Your task to perform on an android device: Check the weather Image 0: 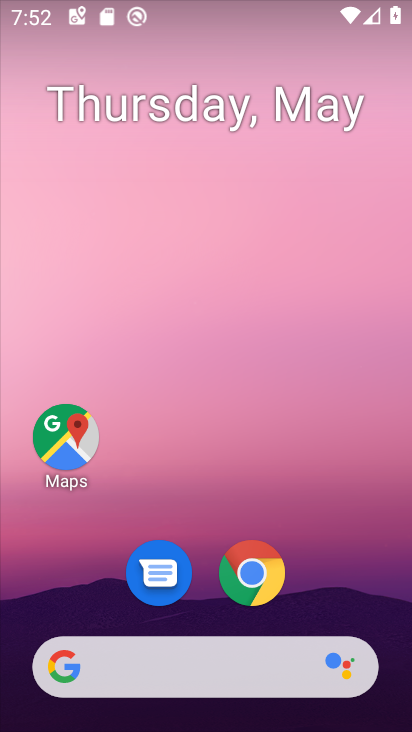
Step 0: drag from (226, 616) to (208, 79)
Your task to perform on an android device: Check the weather Image 1: 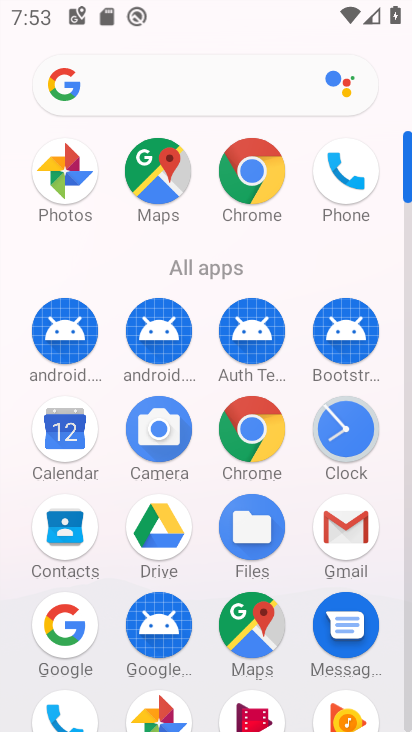
Step 1: click (73, 637)
Your task to perform on an android device: Check the weather Image 2: 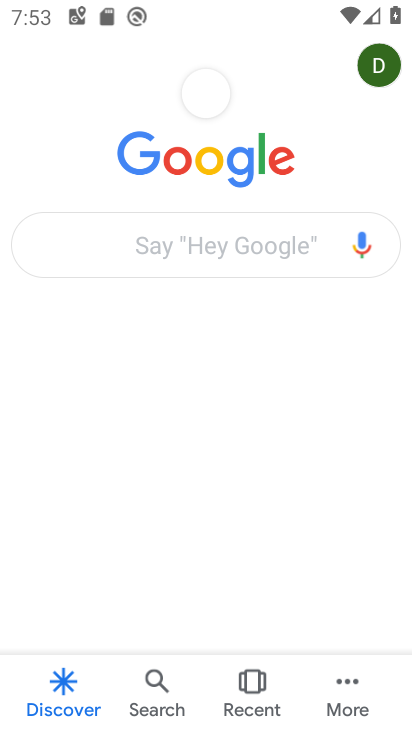
Step 2: click (189, 211)
Your task to perform on an android device: Check the weather Image 3: 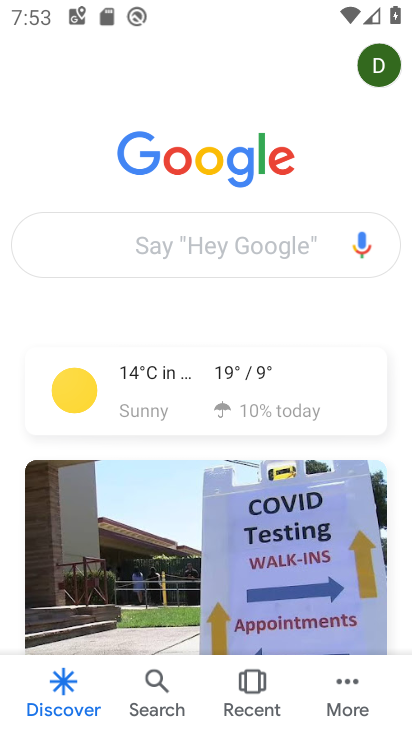
Step 3: click (185, 259)
Your task to perform on an android device: Check the weather Image 4: 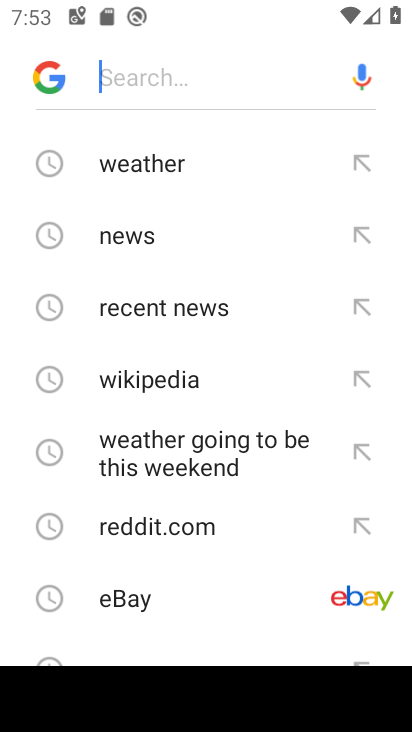
Step 4: click (140, 180)
Your task to perform on an android device: Check the weather Image 5: 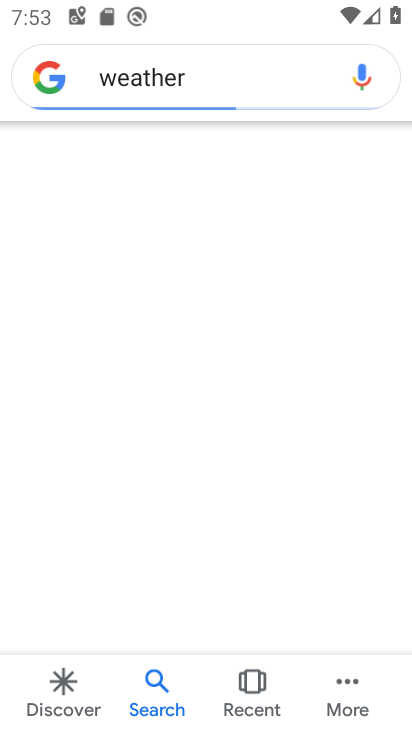
Step 5: task complete